Your task to perform on an android device: View the shopping cart on target. Image 0: 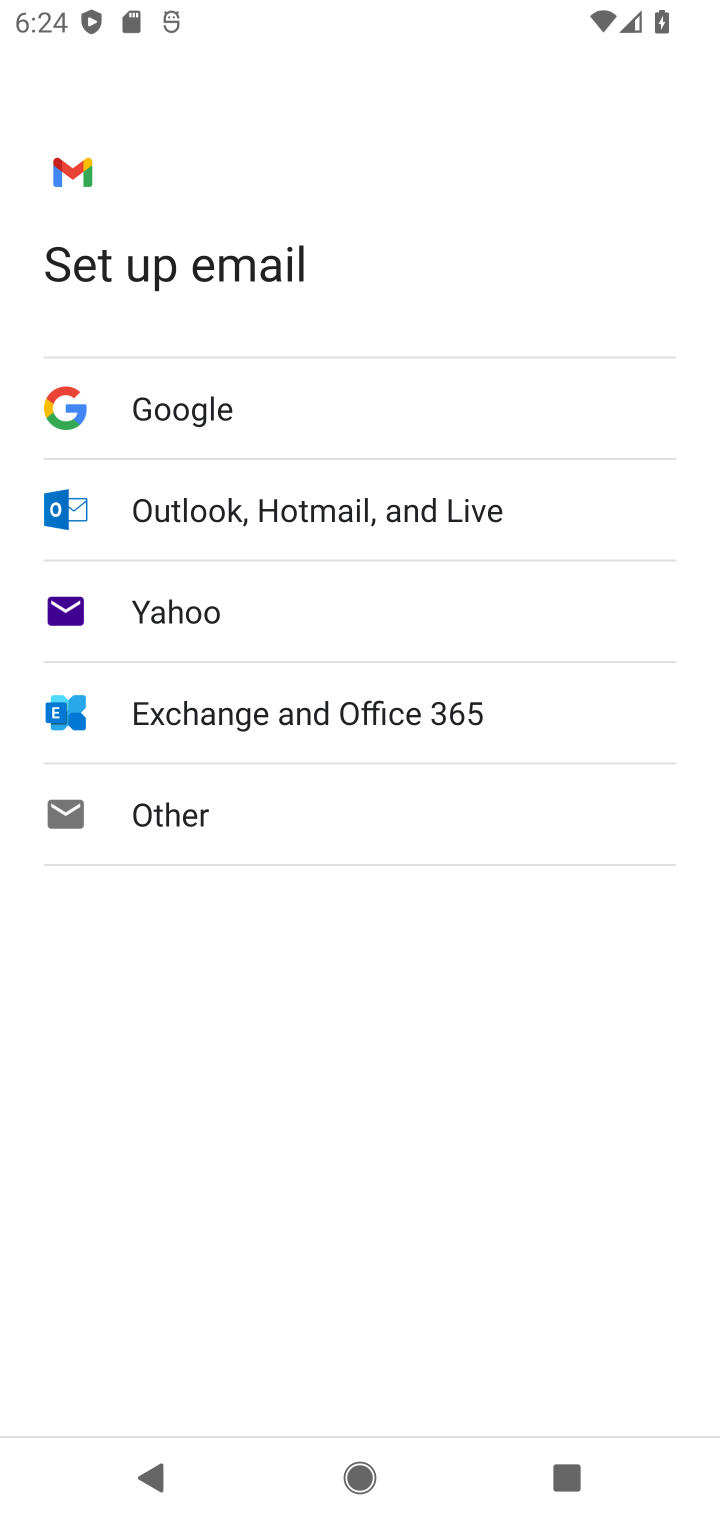
Step 0: press home button
Your task to perform on an android device: View the shopping cart on target. Image 1: 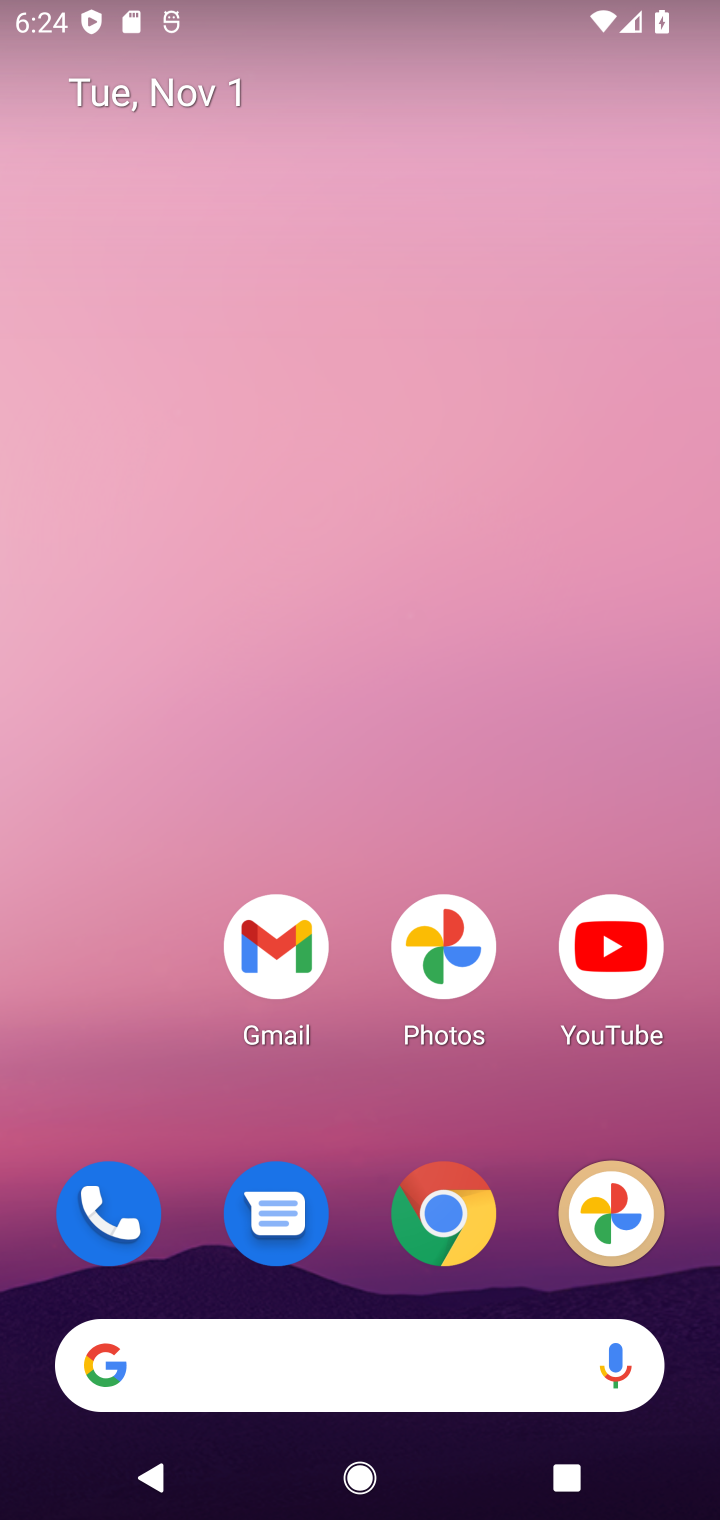
Step 1: click (447, 1221)
Your task to perform on an android device: View the shopping cart on target. Image 2: 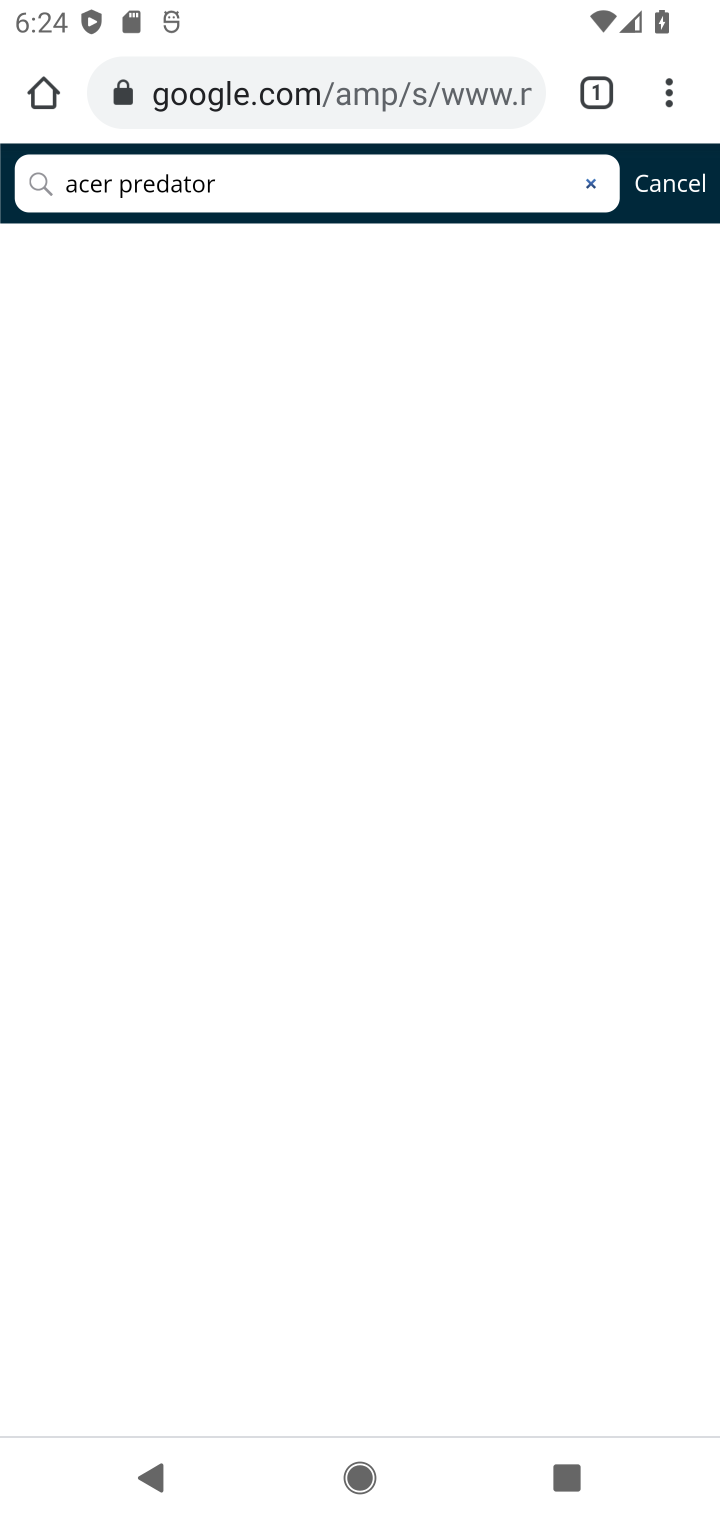
Step 2: click (360, 91)
Your task to perform on an android device: View the shopping cart on target. Image 3: 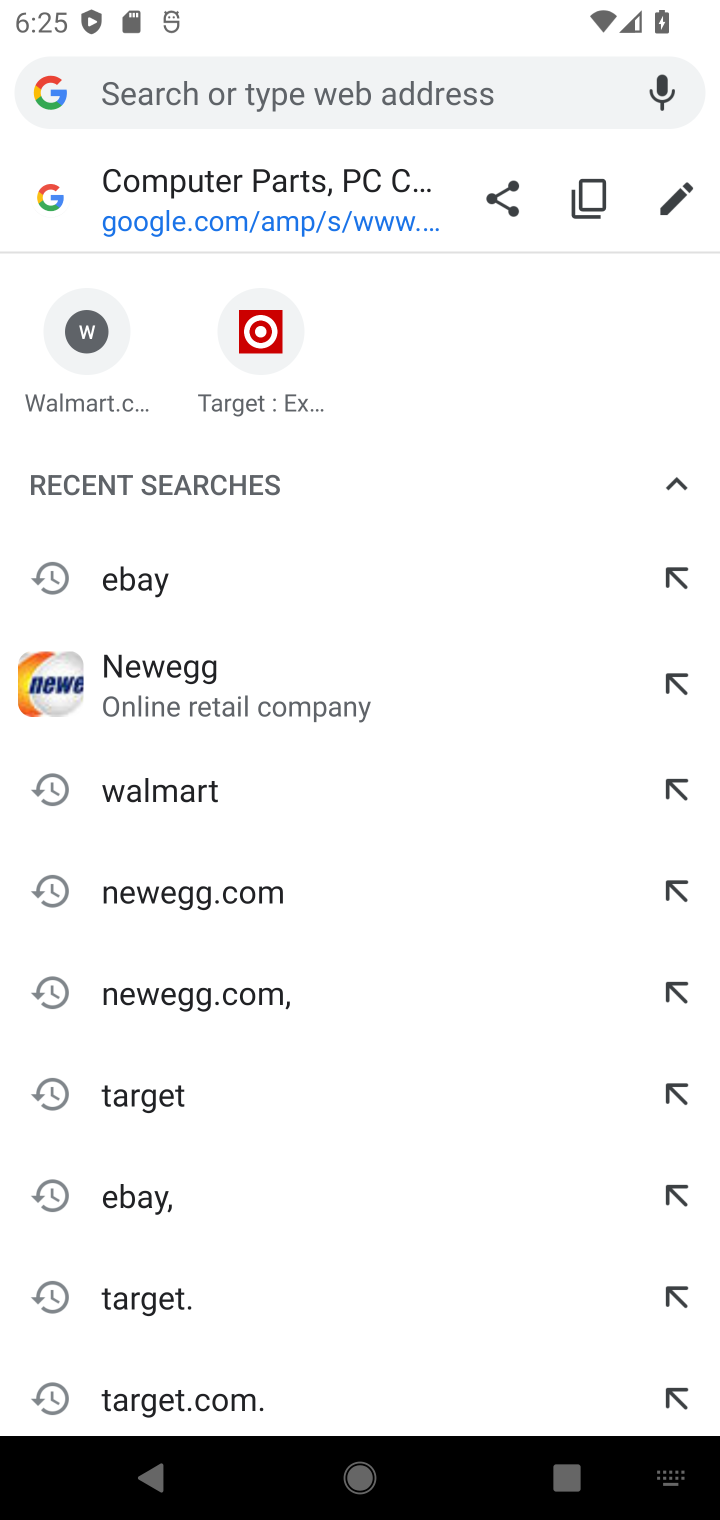
Step 3: type "target"
Your task to perform on an android device: View the shopping cart on target. Image 4: 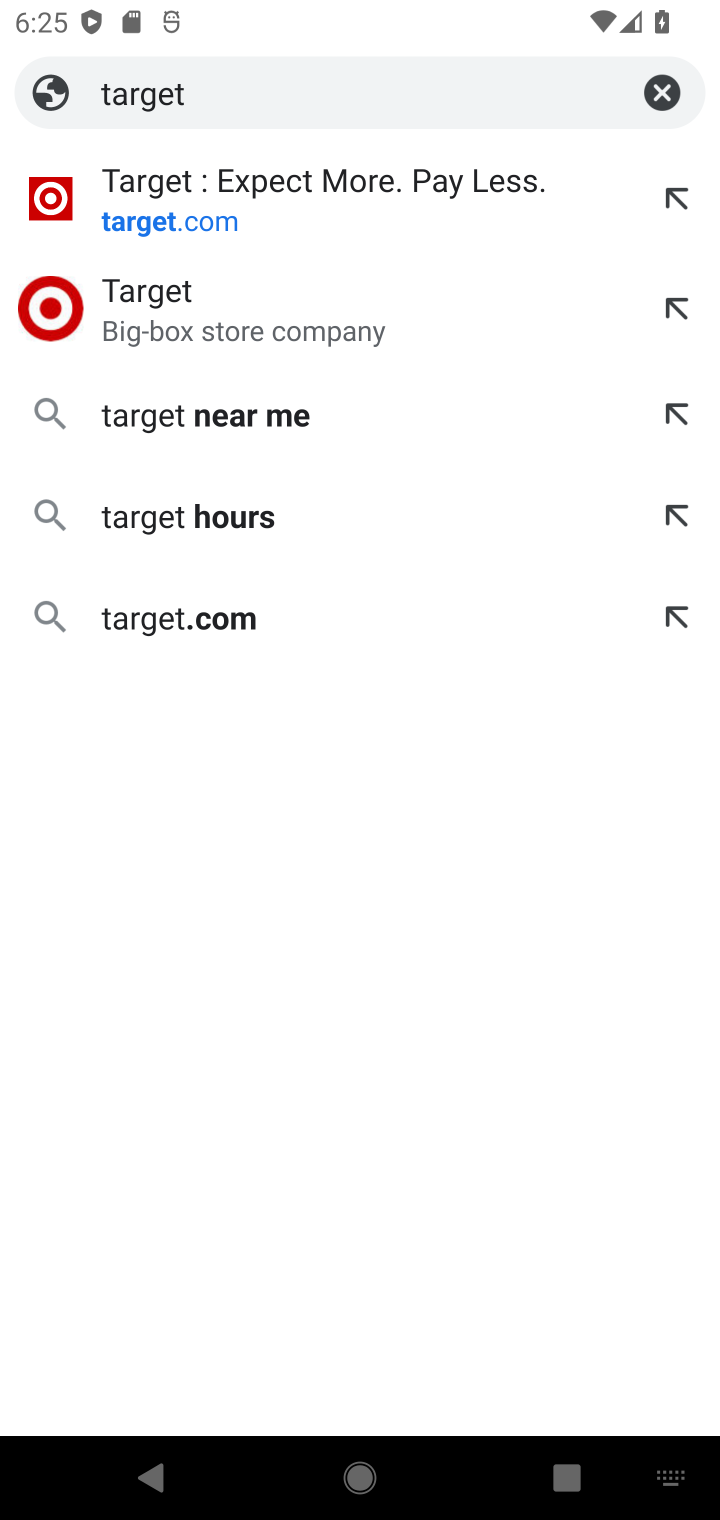
Step 4: click (284, 203)
Your task to perform on an android device: View the shopping cart on target. Image 5: 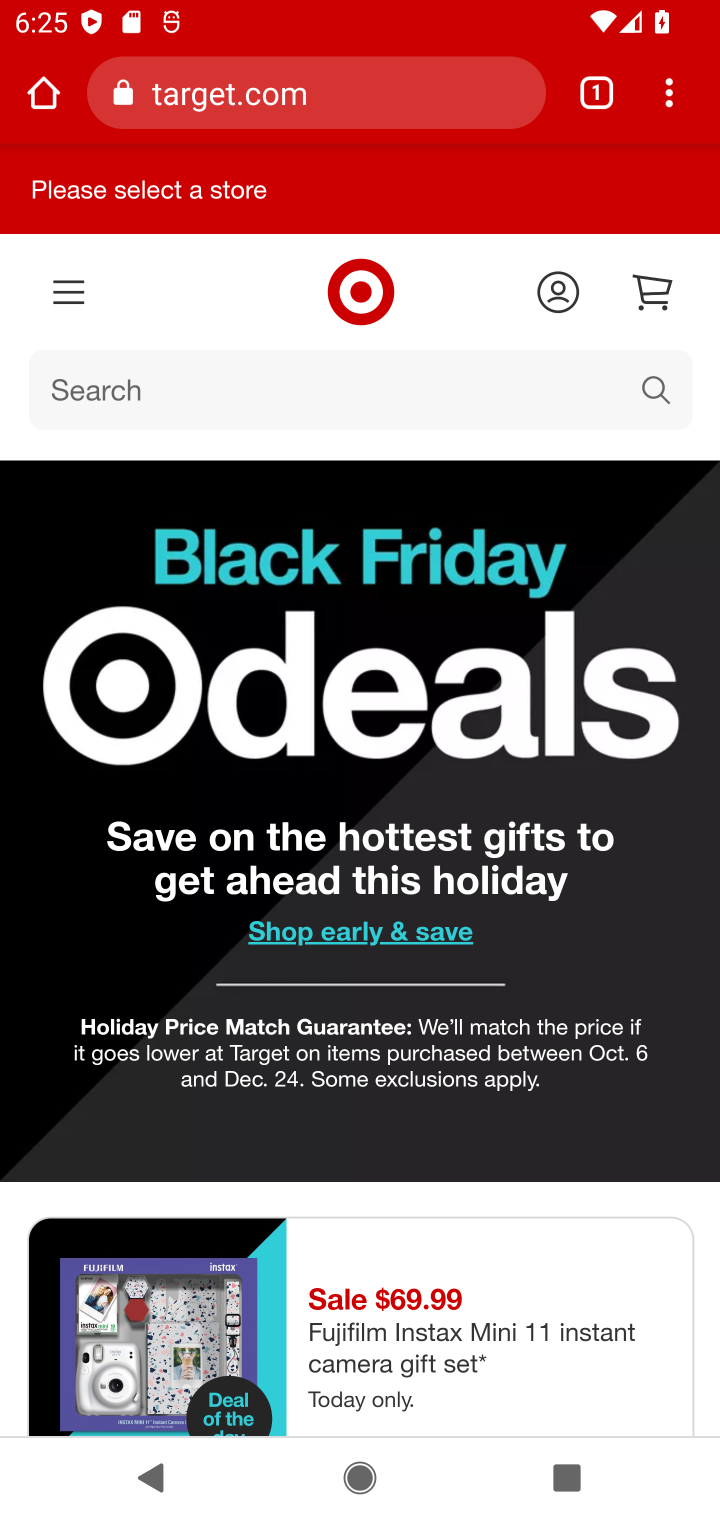
Step 5: click (664, 298)
Your task to perform on an android device: View the shopping cart on target. Image 6: 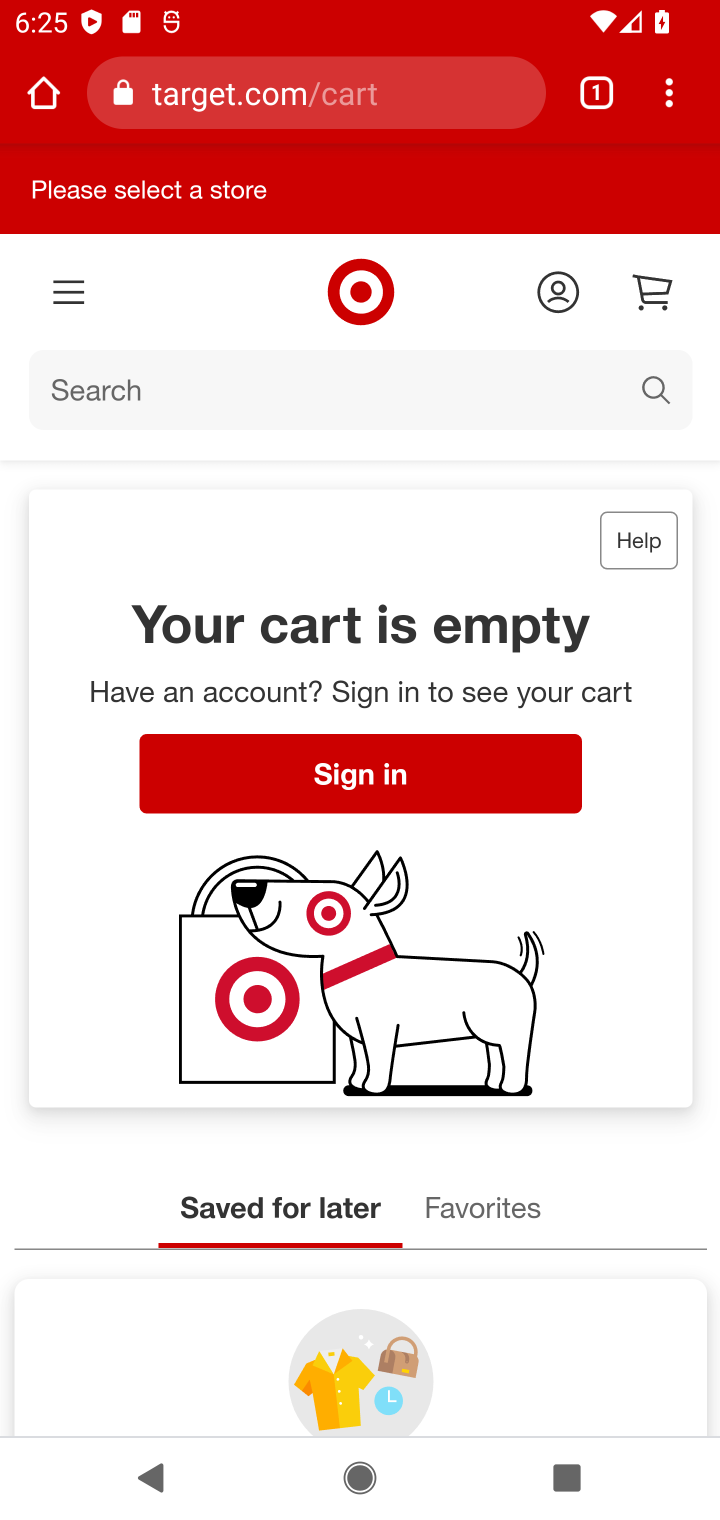
Step 6: task complete